Your task to perform on an android device: Open Youtube and go to "Your channel" Image 0: 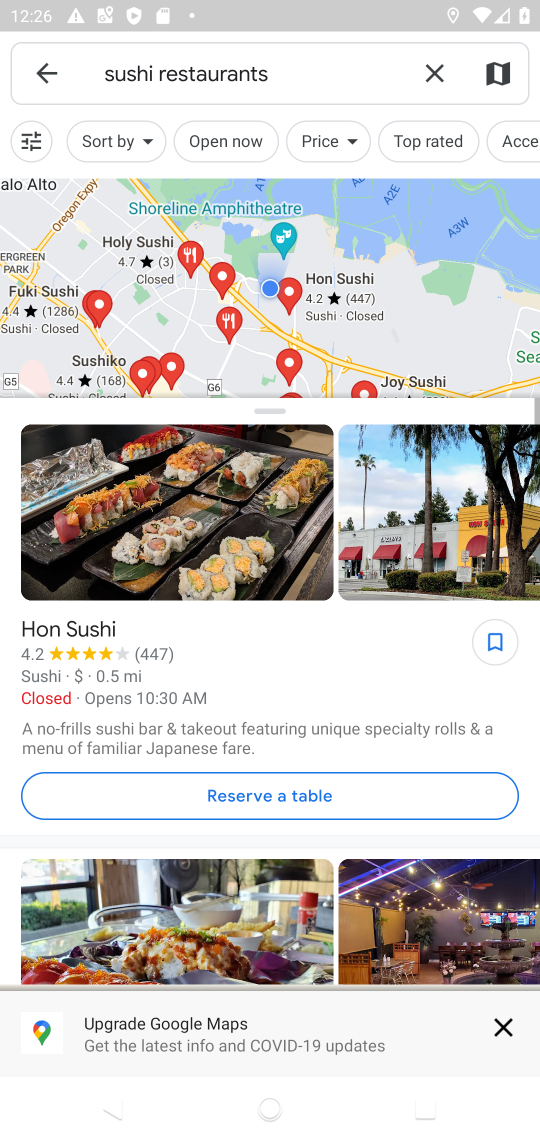
Step 0: press home button
Your task to perform on an android device: Open Youtube and go to "Your channel" Image 1: 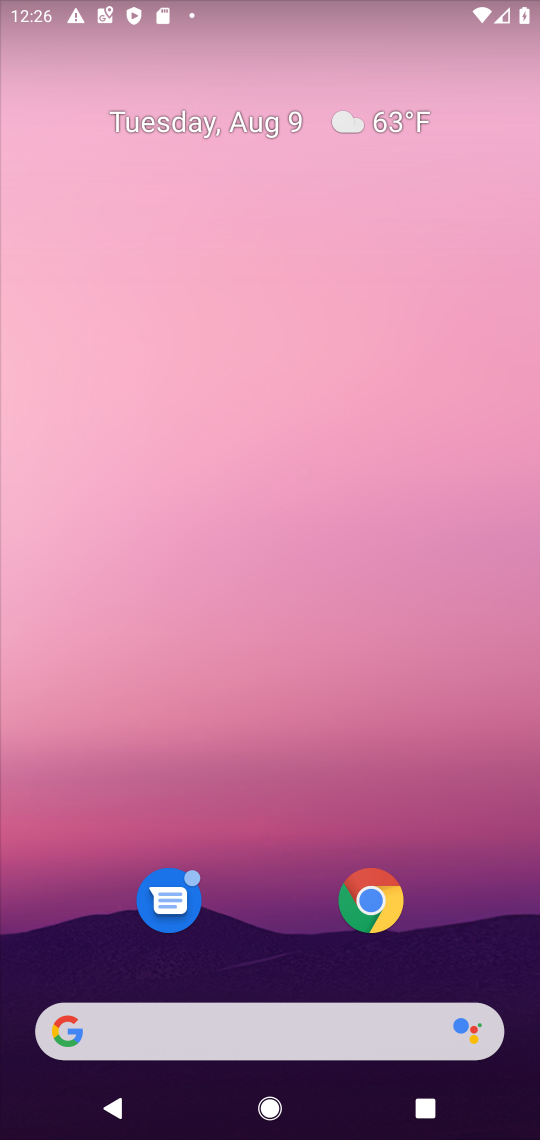
Step 1: drag from (446, 932) to (481, 100)
Your task to perform on an android device: Open Youtube and go to "Your channel" Image 2: 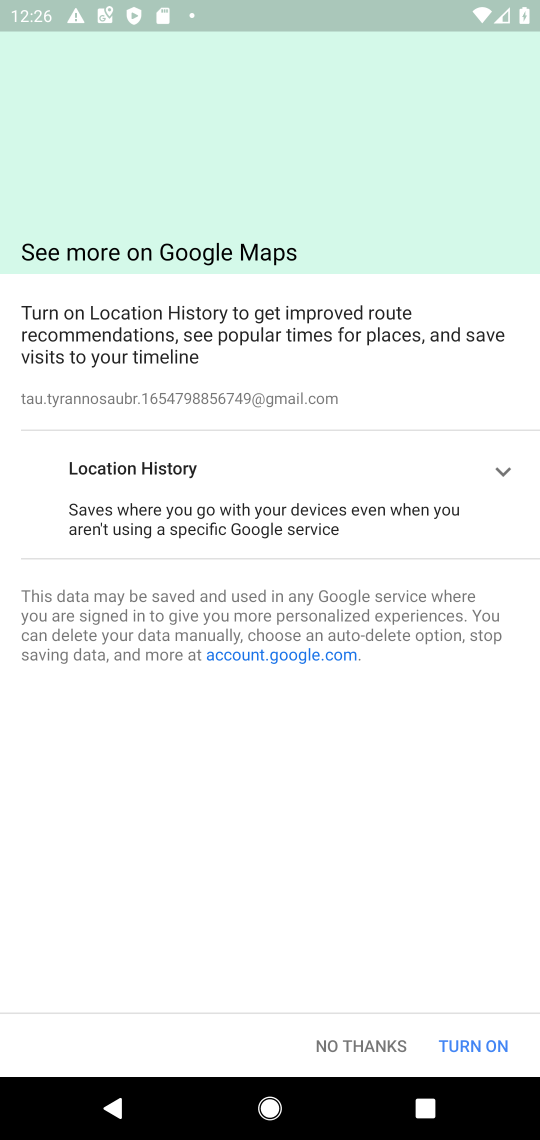
Step 2: press home button
Your task to perform on an android device: Open Youtube and go to "Your channel" Image 3: 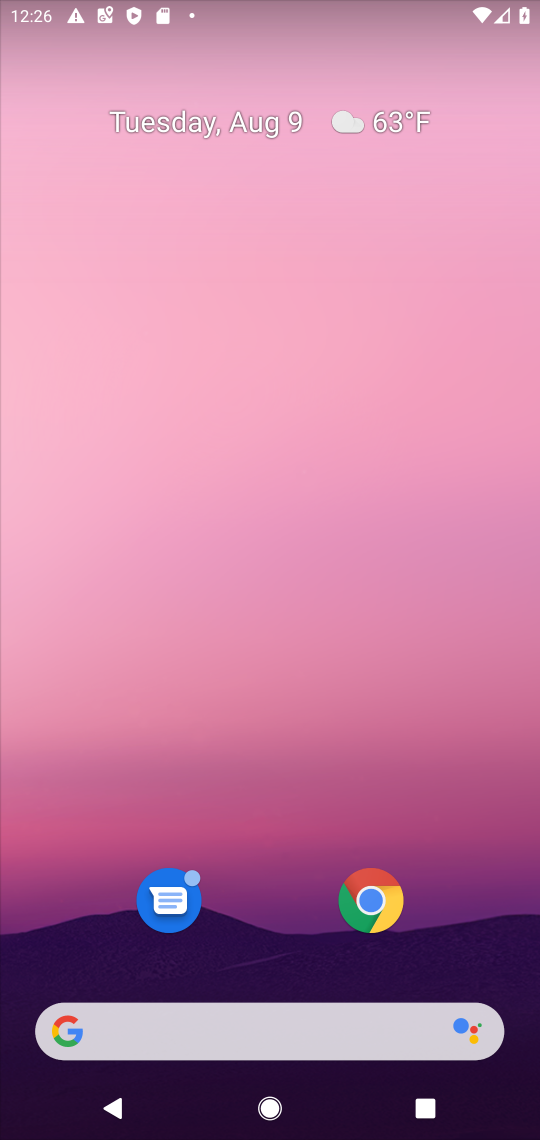
Step 3: drag from (464, 915) to (474, 105)
Your task to perform on an android device: Open Youtube and go to "Your channel" Image 4: 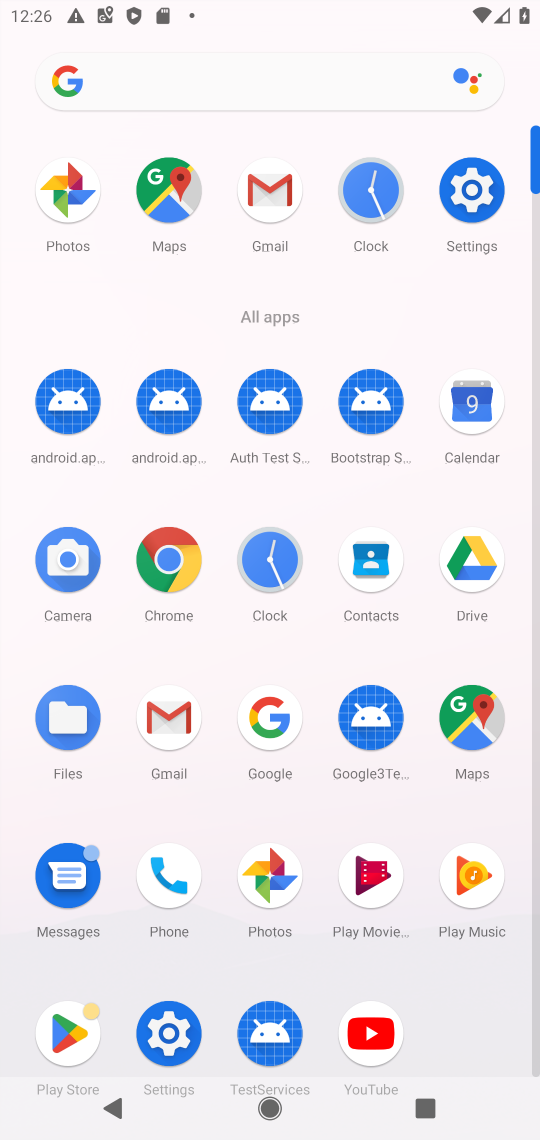
Step 4: click (370, 1033)
Your task to perform on an android device: Open Youtube and go to "Your channel" Image 5: 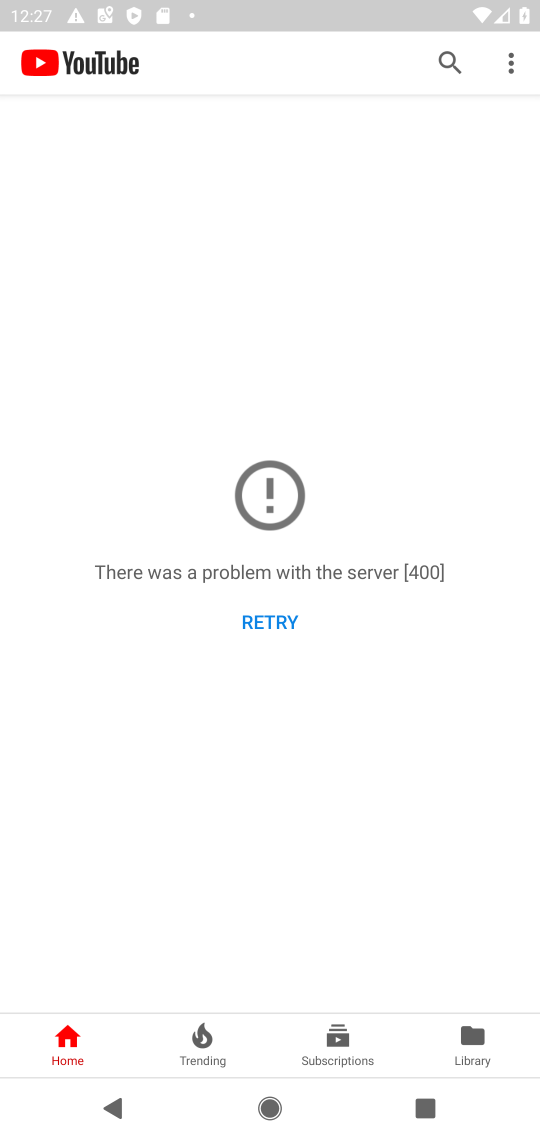
Step 5: click (515, 62)
Your task to perform on an android device: Open Youtube and go to "Your channel" Image 6: 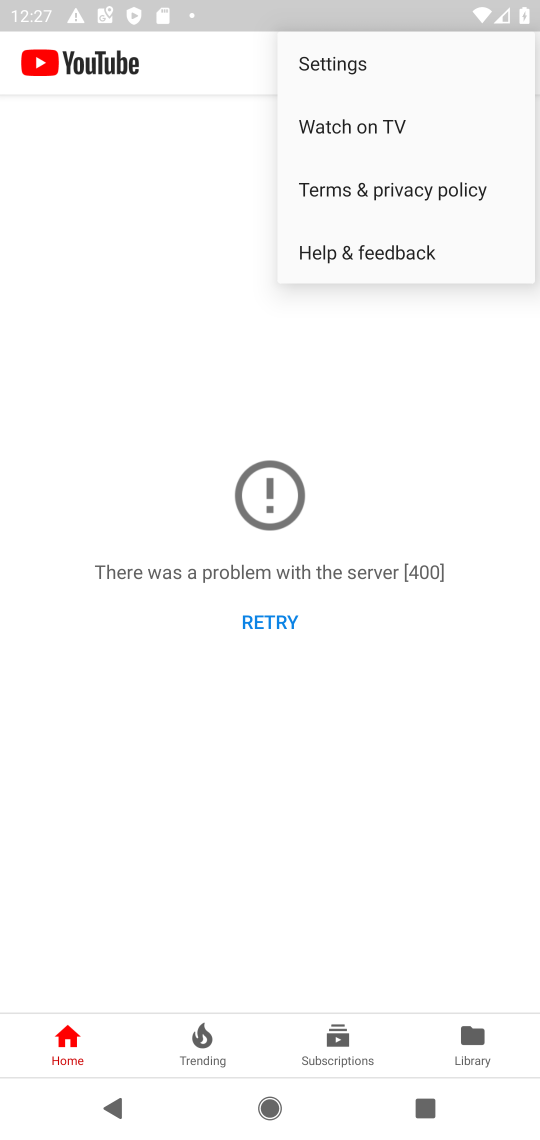
Step 6: click (359, 62)
Your task to perform on an android device: Open Youtube and go to "Your channel" Image 7: 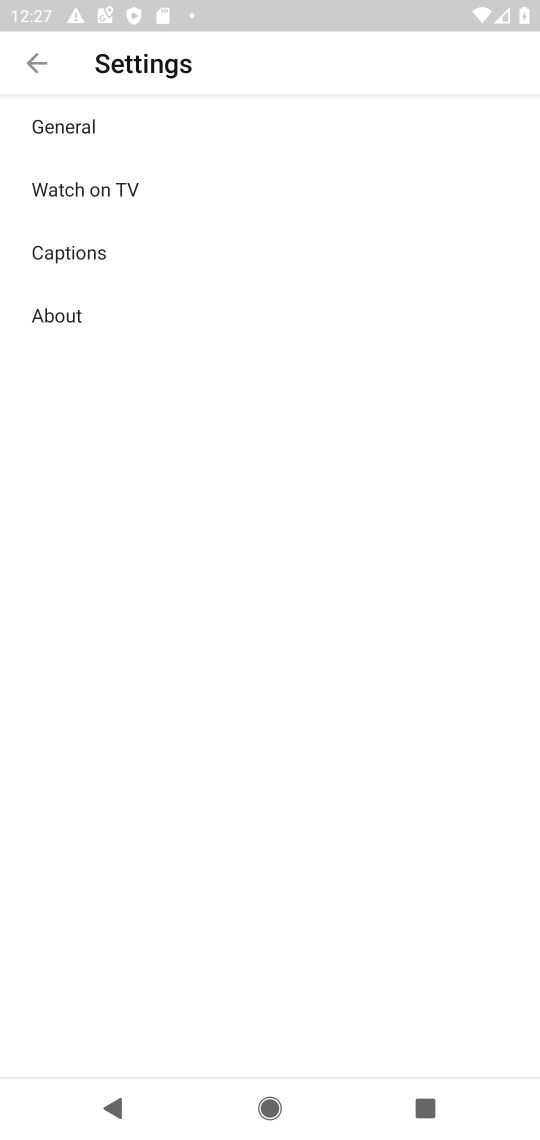
Step 7: task complete